Your task to perform on an android device: change text size in settings app Image 0: 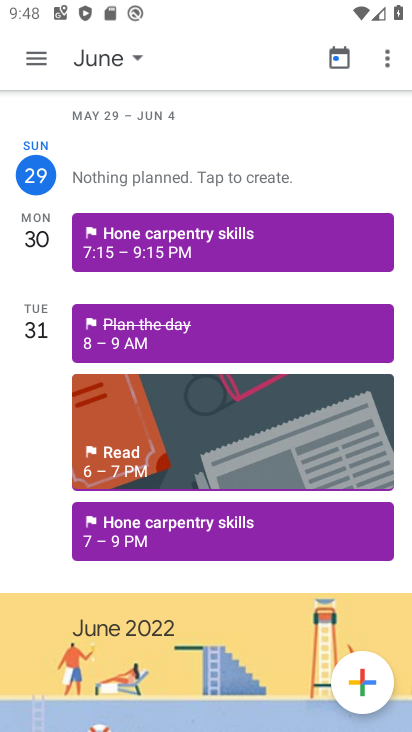
Step 0: press home button
Your task to perform on an android device: change text size in settings app Image 1: 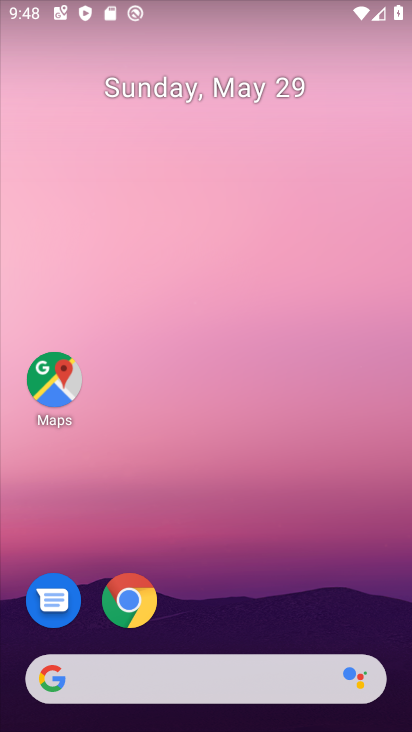
Step 1: drag from (199, 726) to (159, 19)
Your task to perform on an android device: change text size in settings app Image 2: 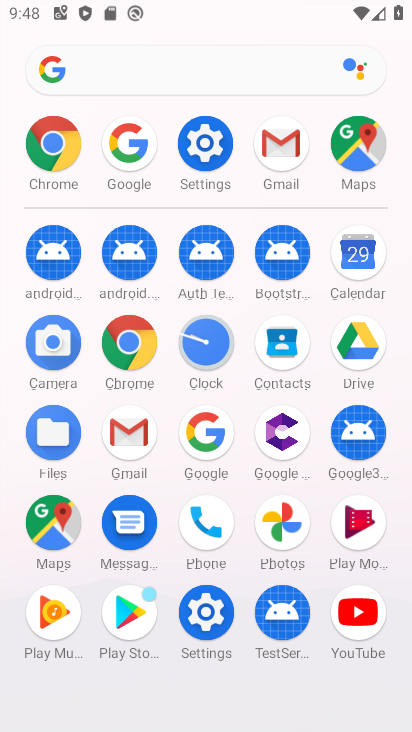
Step 2: click (211, 138)
Your task to perform on an android device: change text size in settings app Image 3: 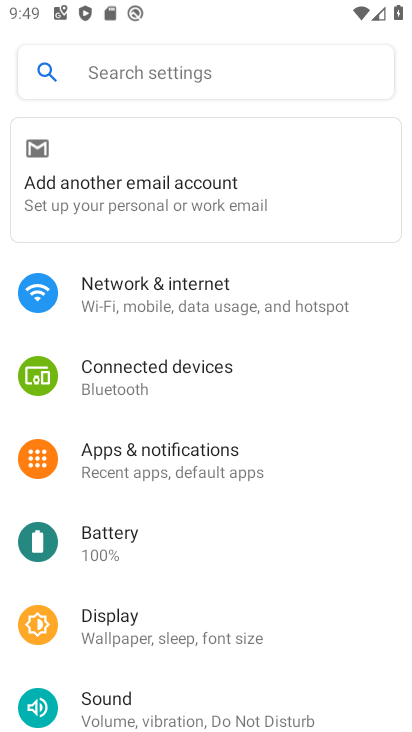
Step 3: click (201, 637)
Your task to perform on an android device: change text size in settings app Image 4: 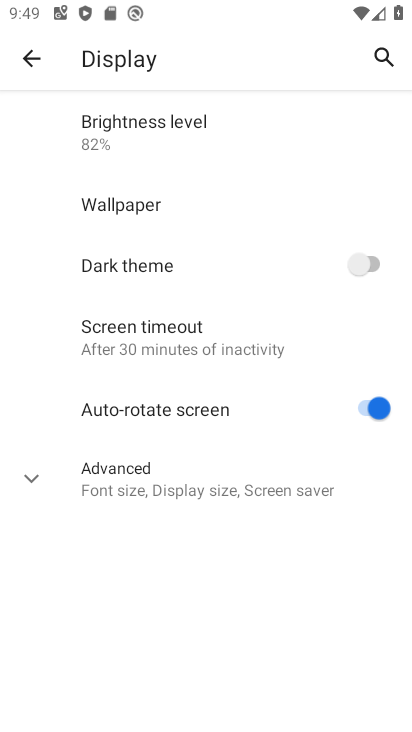
Step 4: click (174, 481)
Your task to perform on an android device: change text size in settings app Image 5: 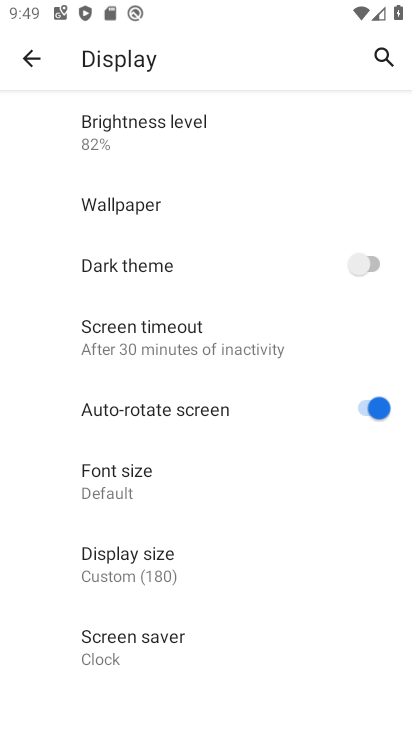
Step 5: click (114, 475)
Your task to perform on an android device: change text size in settings app Image 6: 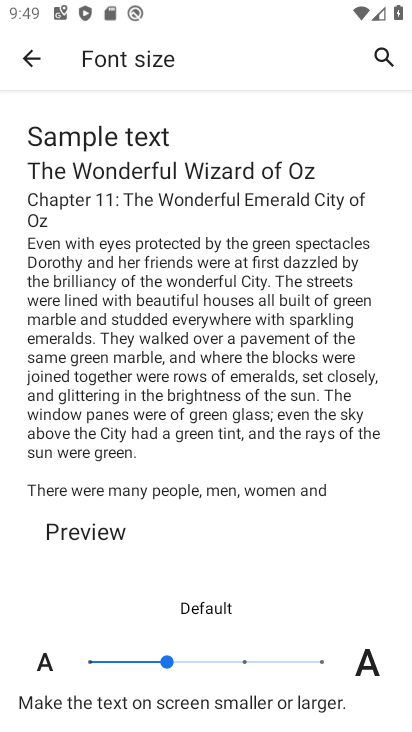
Step 6: click (253, 657)
Your task to perform on an android device: change text size in settings app Image 7: 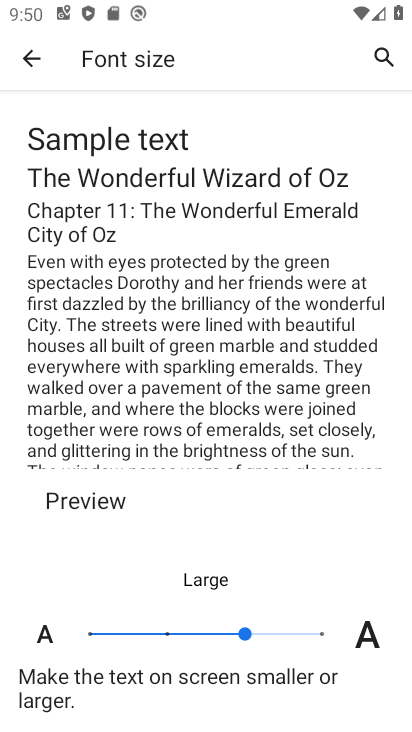
Step 7: click (232, 650)
Your task to perform on an android device: change text size in settings app Image 8: 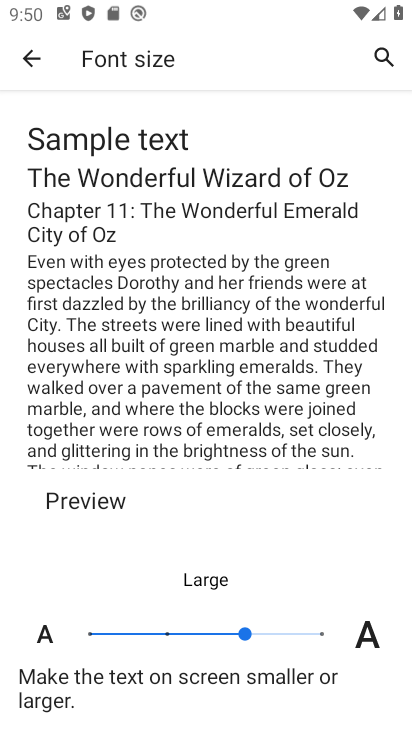
Step 8: task complete